Your task to perform on an android device: Go to internet settings Image 0: 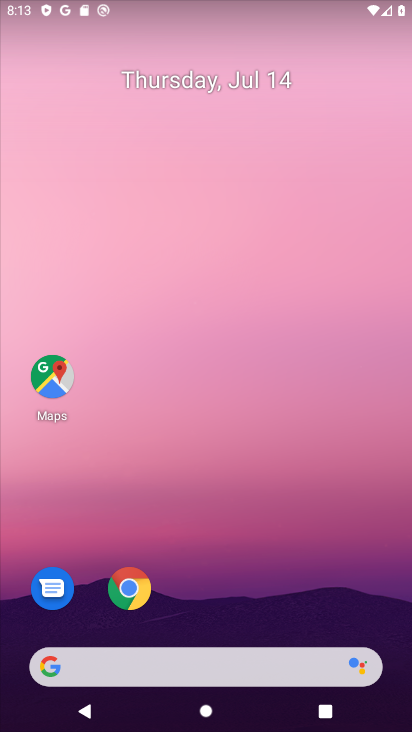
Step 0: drag from (284, 619) to (169, 94)
Your task to perform on an android device: Go to internet settings Image 1: 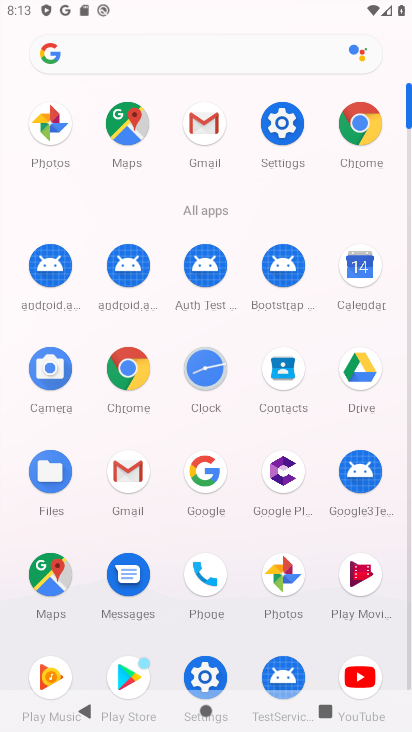
Step 1: click (273, 134)
Your task to perform on an android device: Go to internet settings Image 2: 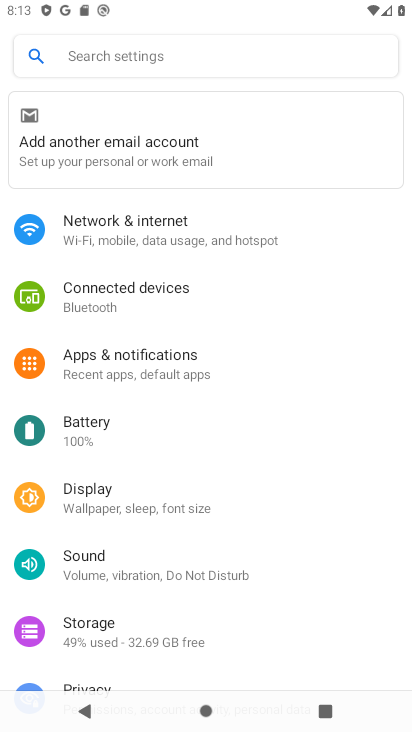
Step 2: click (229, 228)
Your task to perform on an android device: Go to internet settings Image 3: 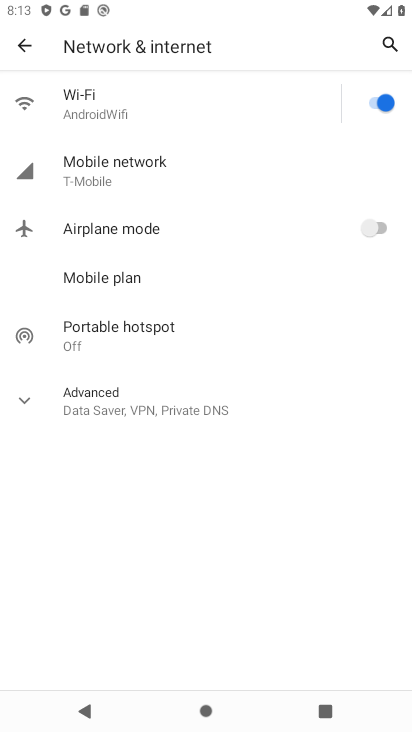
Step 3: task complete